Your task to perform on an android device: find photos in the google photos app Image 0: 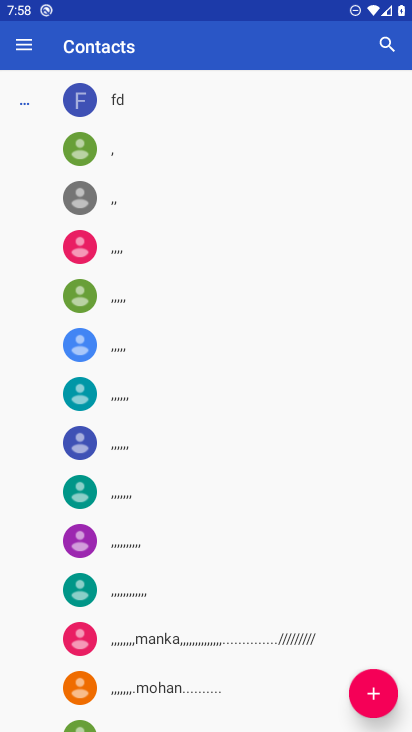
Step 0: press home button
Your task to perform on an android device: find photos in the google photos app Image 1: 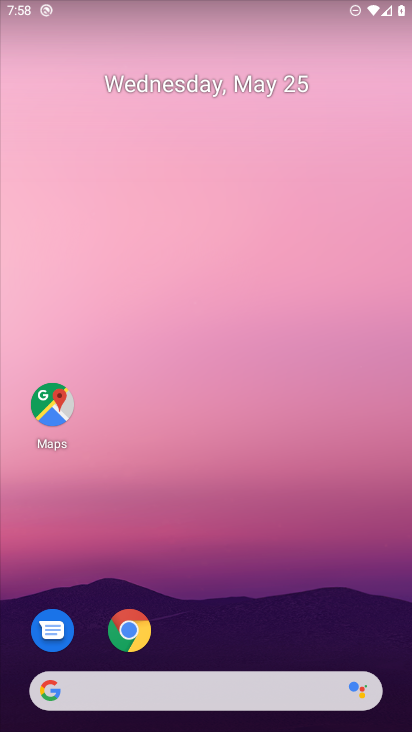
Step 1: drag from (170, 651) to (254, 298)
Your task to perform on an android device: find photos in the google photos app Image 2: 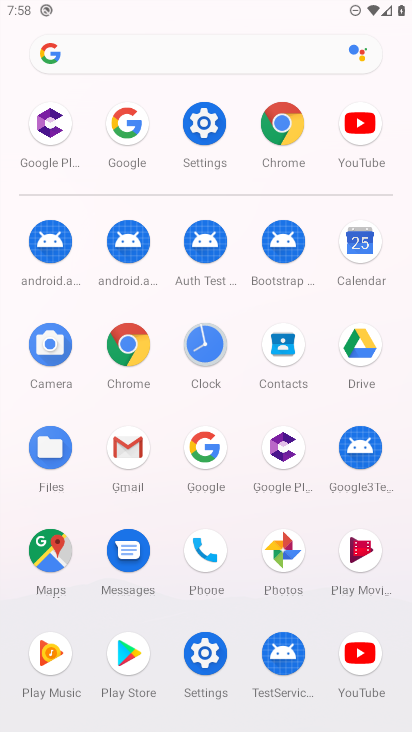
Step 2: click (280, 557)
Your task to perform on an android device: find photos in the google photos app Image 3: 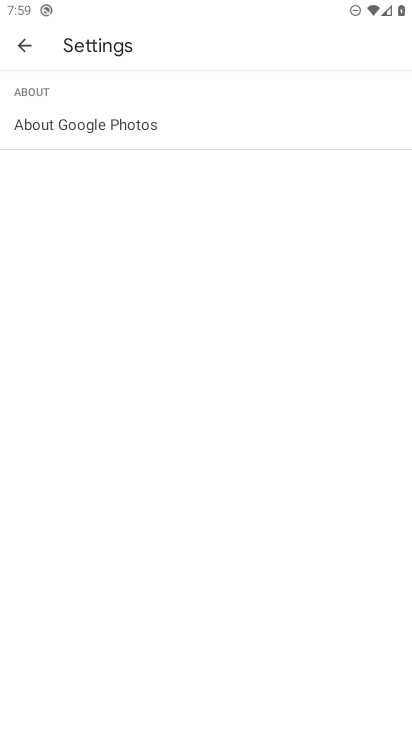
Step 3: click (19, 51)
Your task to perform on an android device: find photos in the google photos app Image 4: 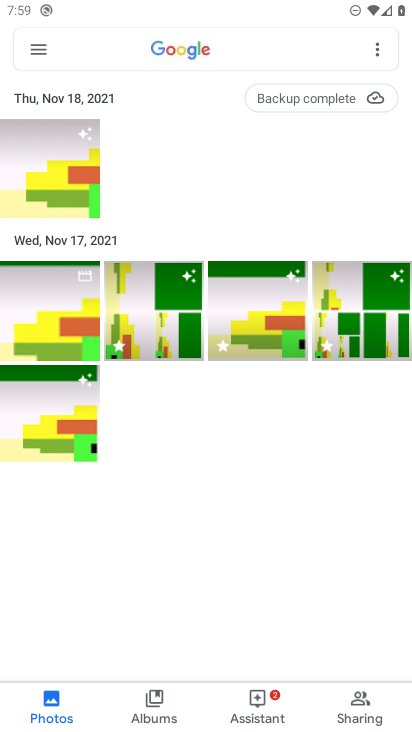
Step 4: click (158, 49)
Your task to perform on an android device: find photos in the google photos app Image 5: 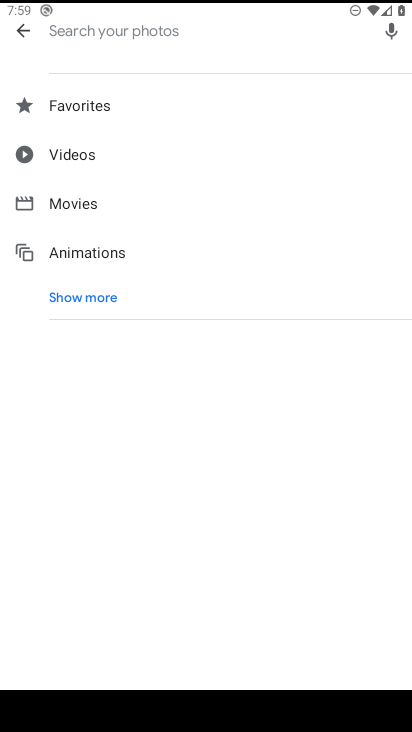
Step 5: type "album 08"
Your task to perform on an android device: find photos in the google photos app Image 6: 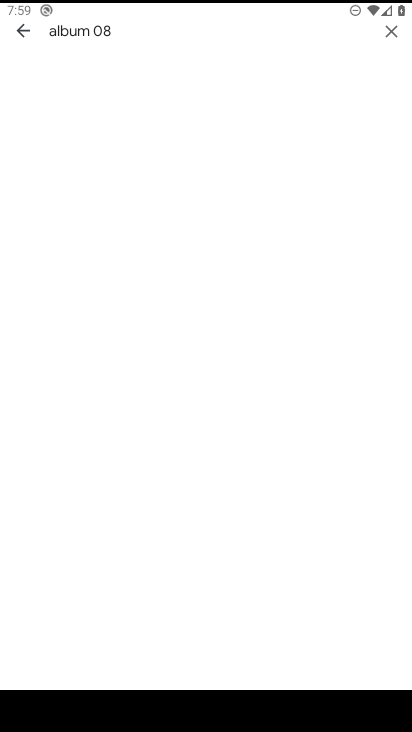
Step 6: click (110, 37)
Your task to perform on an android device: find photos in the google photos app Image 7: 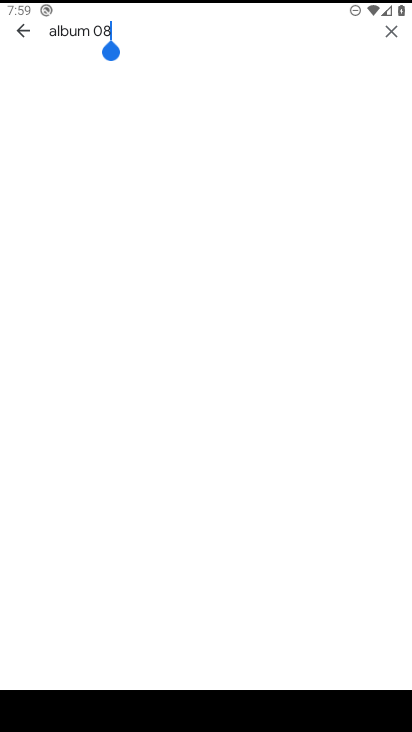
Step 7: click (382, 27)
Your task to perform on an android device: find photos in the google photos app Image 8: 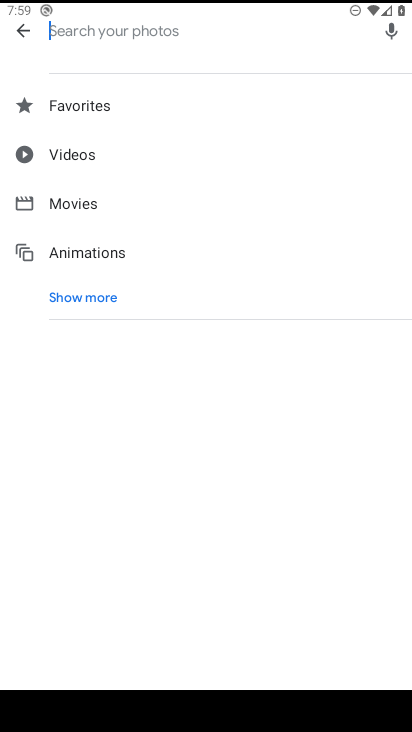
Step 8: type "album 09"
Your task to perform on an android device: find photos in the google photos app Image 9: 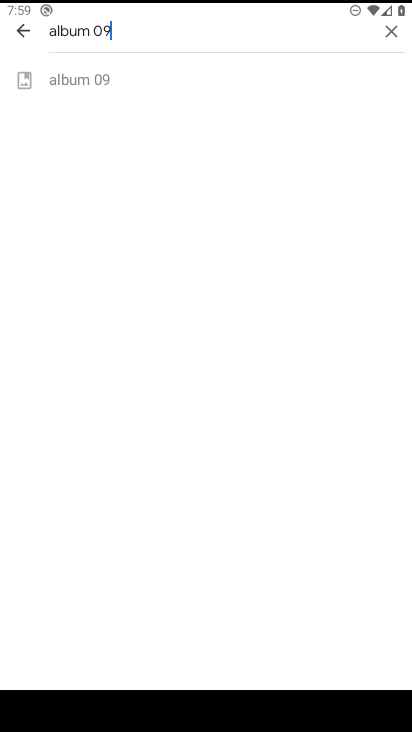
Step 9: click (95, 84)
Your task to perform on an android device: find photos in the google photos app Image 10: 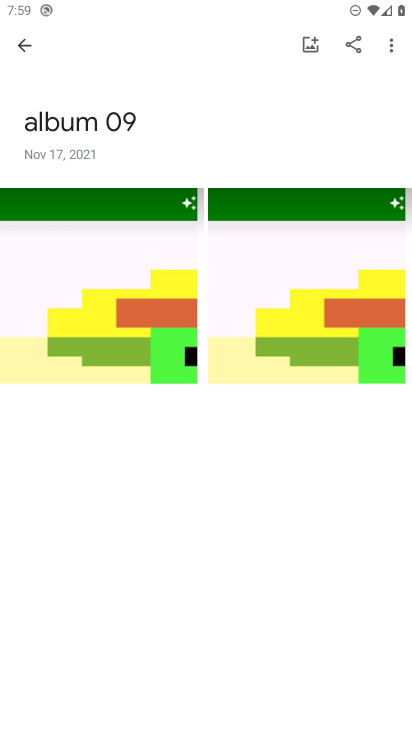
Step 10: task complete